Your task to perform on an android device: Open the stopwatch Image 0: 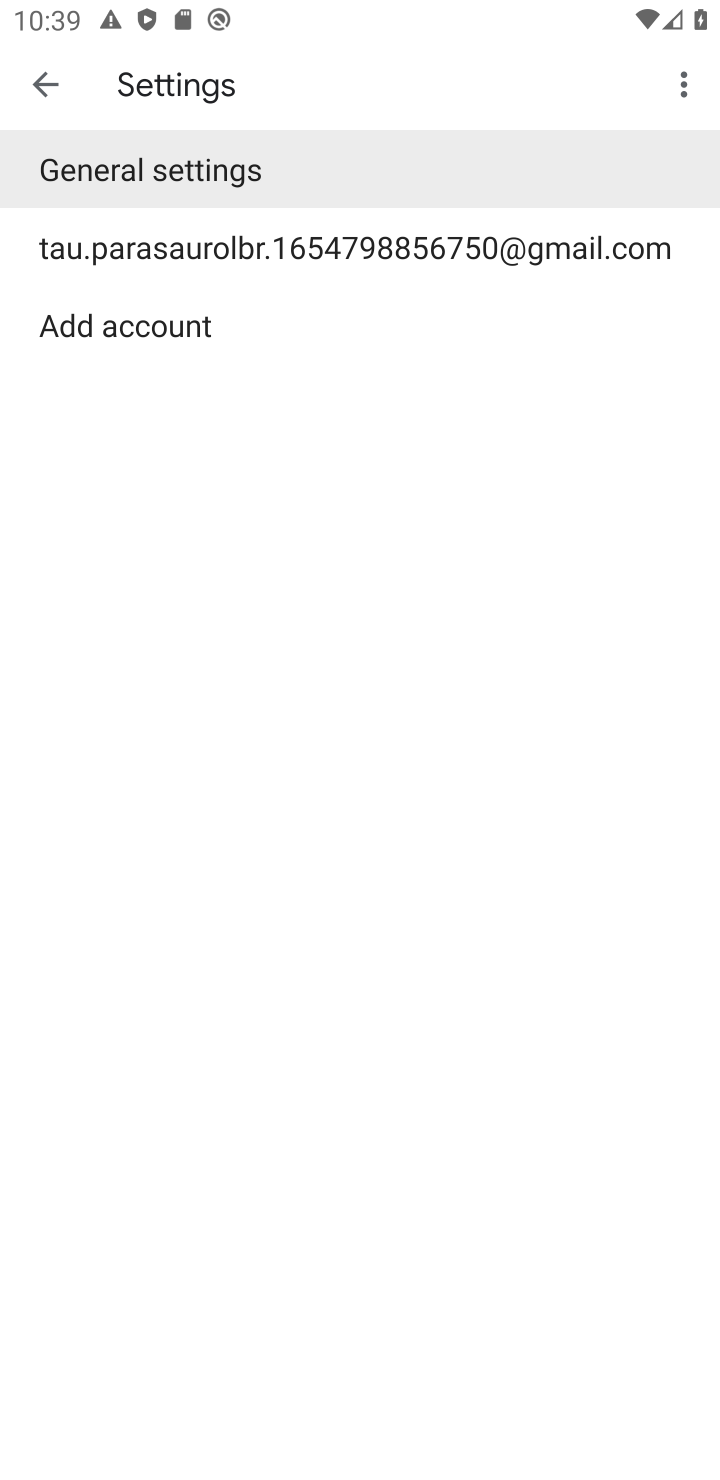
Step 0: press home button
Your task to perform on an android device: Open the stopwatch Image 1: 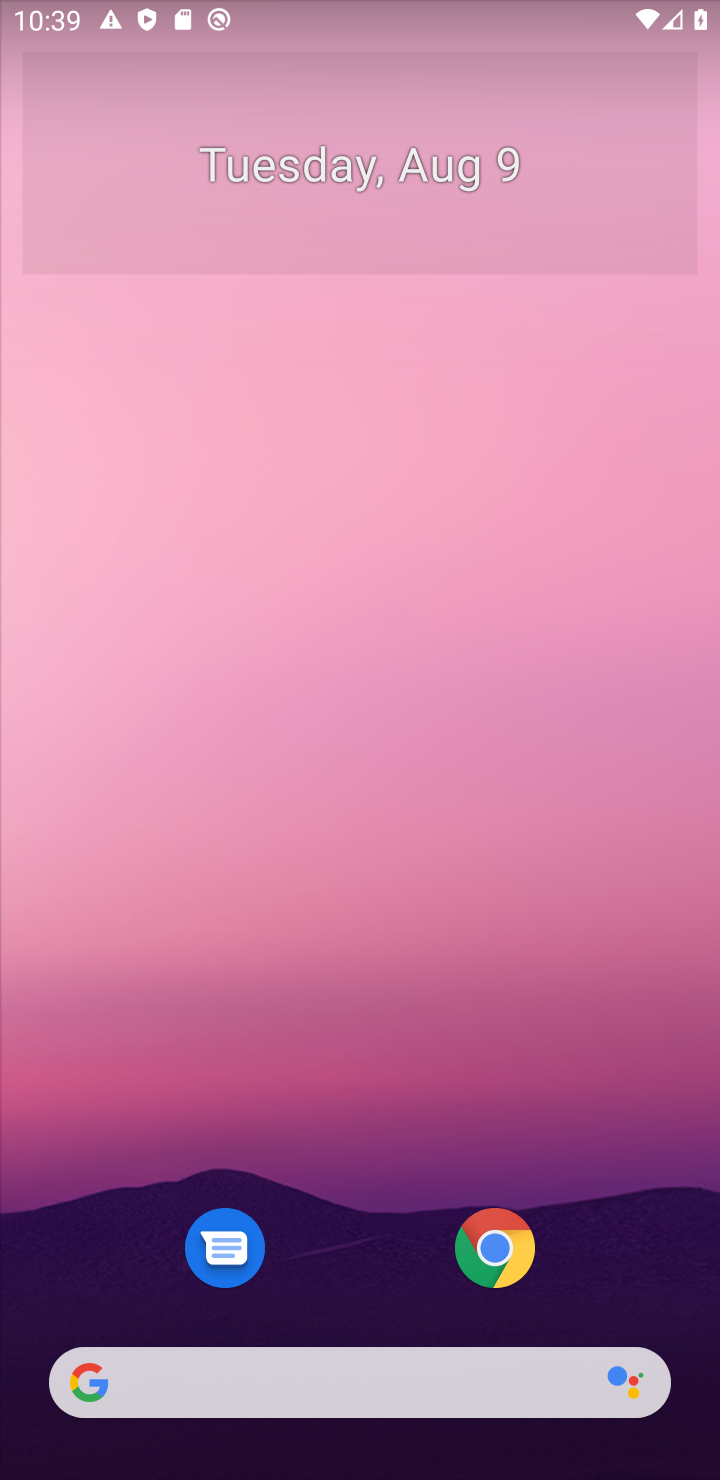
Step 1: task complete